Your task to perform on an android device: see sites visited before in the chrome app Image 0: 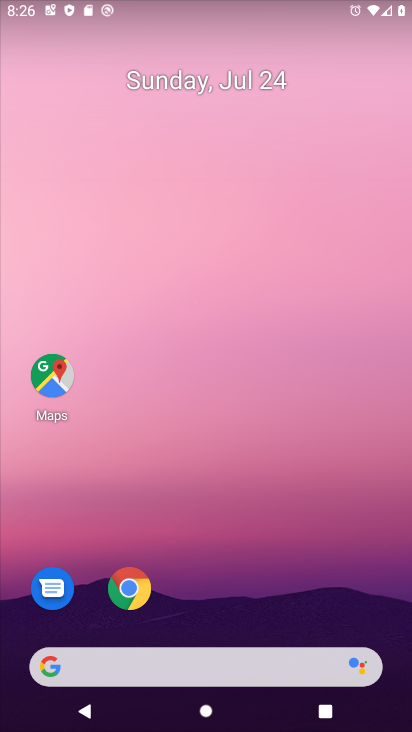
Step 0: drag from (124, 633) to (248, 109)
Your task to perform on an android device: see sites visited before in the chrome app Image 1: 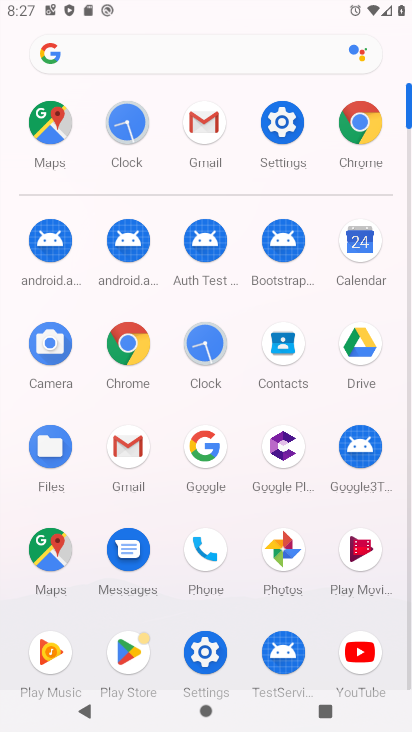
Step 1: click (387, 118)
Your task to perform on an android device: see sites visited before in the chrome app Image 2: 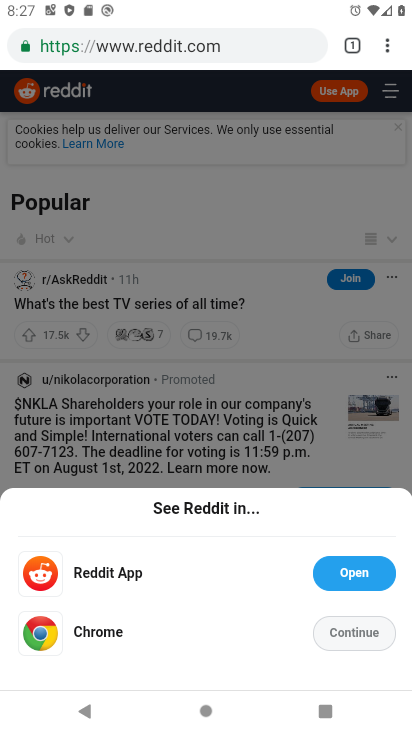
Step 2: drag from (379, 43) to (270, 209)
Your task to perform on an android device: see sites visited before in the chrome app Image 3: 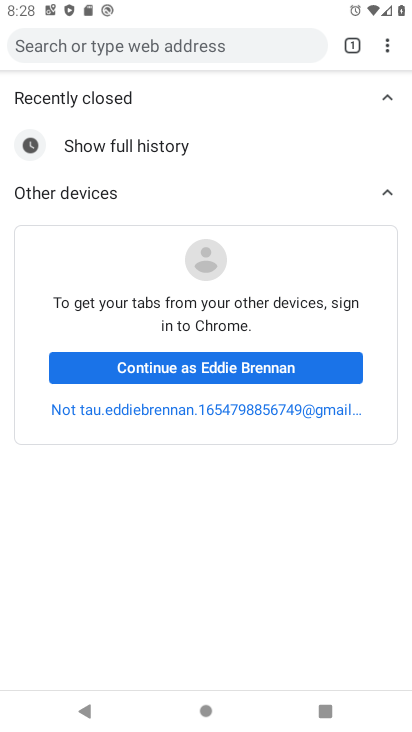
Step 3: click (221, 376)
Your task to perform on an android device: see sites visited before in the chrome app Image 4: 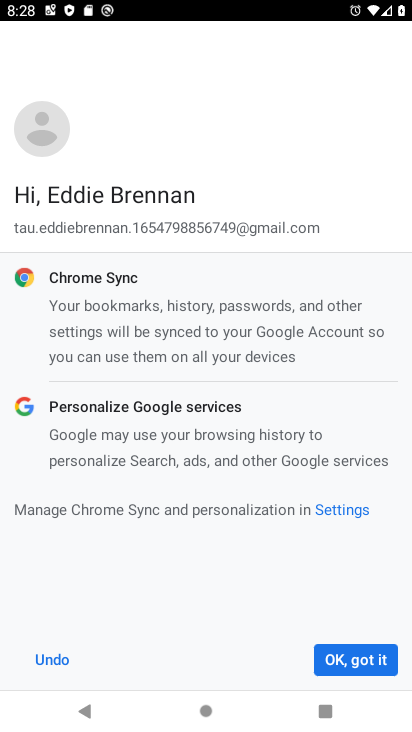
Step 4: task complete